Your task to perform on an android device: open a bookmark in the chrome app Image 0: 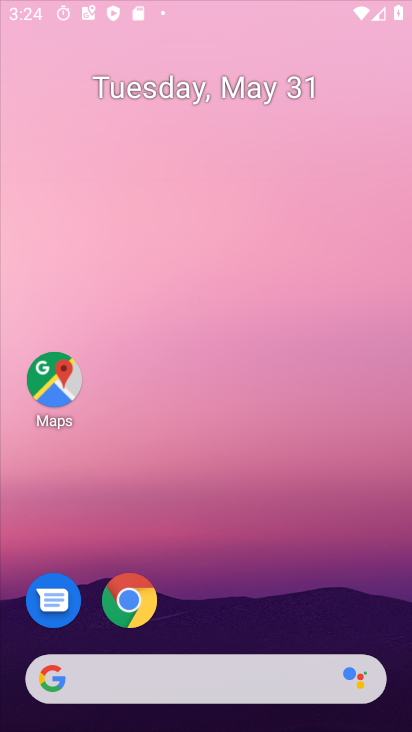
Step 0: press home button
Your task to perform on an android device: open a bookmark in the chrome app Image 1: 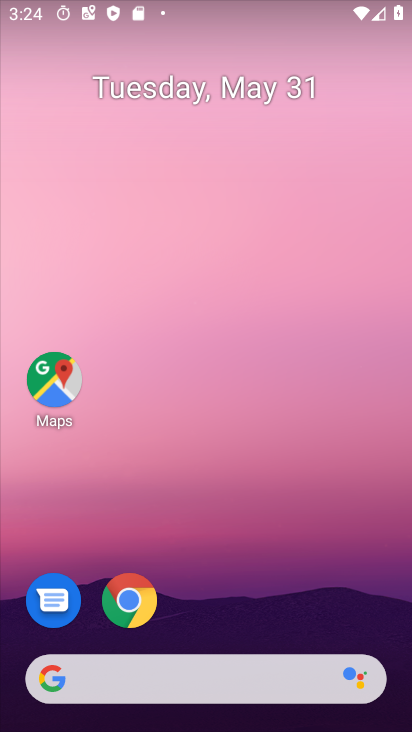
Step 1: click (126, 597)
Your task to perform on an android device: open a bookmark in the chrome app Image 2: 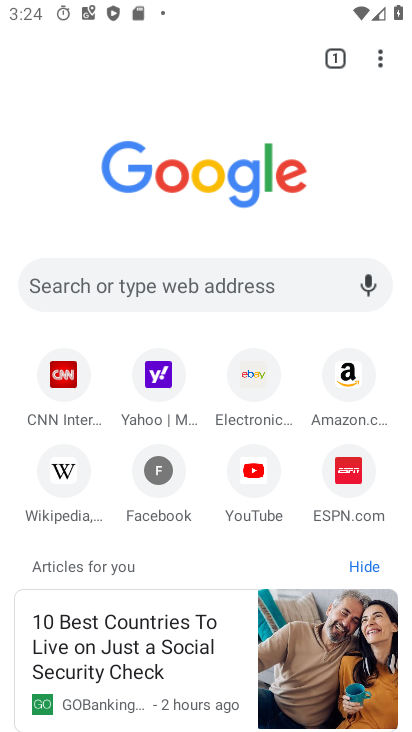
Step 2: click (139, 279)
Your task to perform on an android device: open a bookmark in the chrome app Image 3: 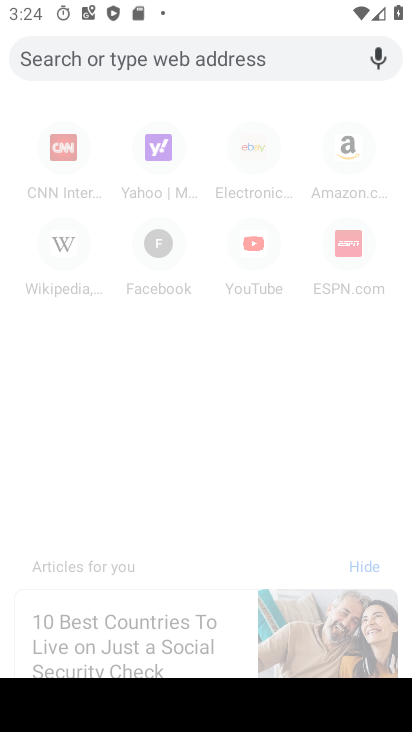
Step 3: click (165, 422)
Your task to perform on an android device: open a bookmark in the chrome app Image 4: 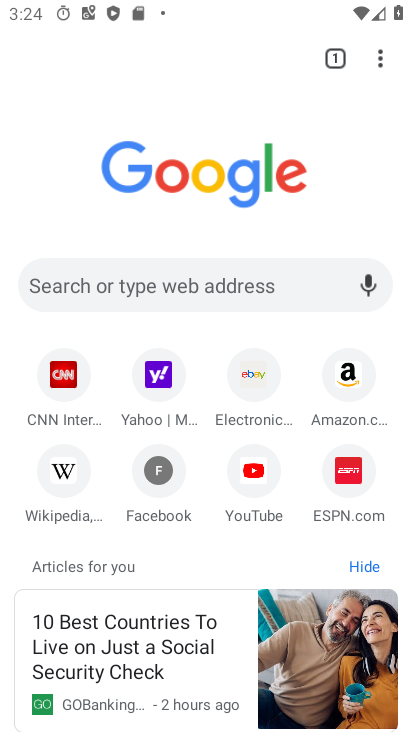
Step 4: click (378, 59)
Your task to perform on an android device: open a bookmark in the chrome app Image 5: 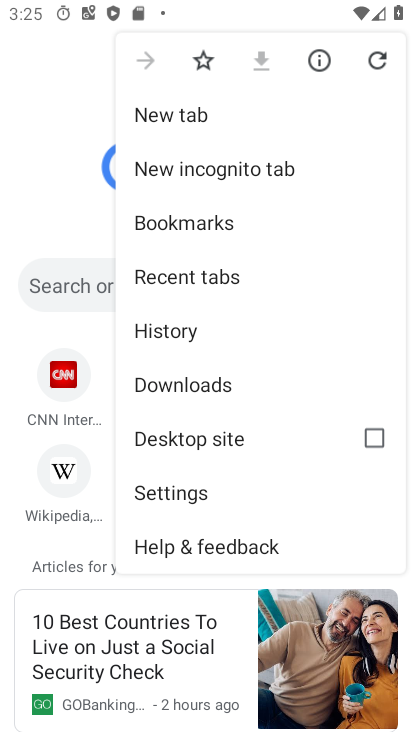
Step 5: click (243, 218)
Your task to perform on an android device: open a bookmark in the chrome app Image 6: 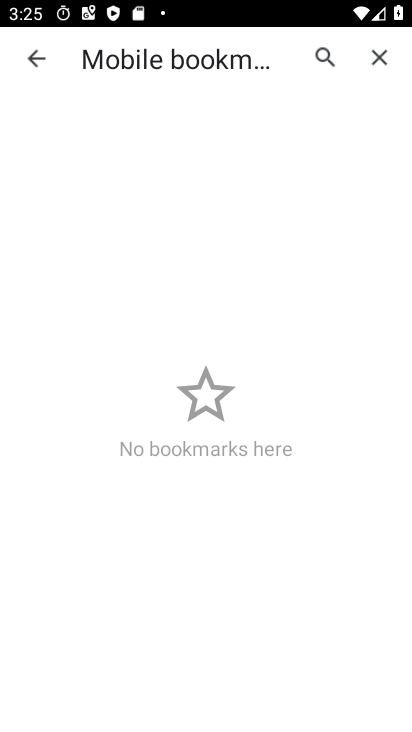
Step 6: click (381, 61)
Your task to perform on an android device: open a bookmark in the chrome app Image 7: 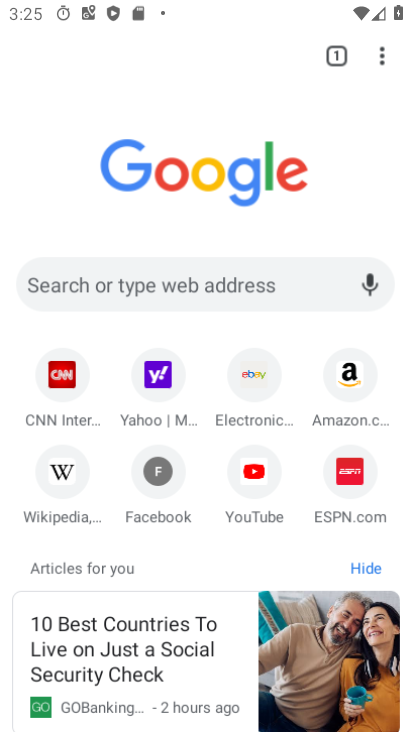
Step 7: task complete